Your task to perform on an android device: check battery use Image 0: 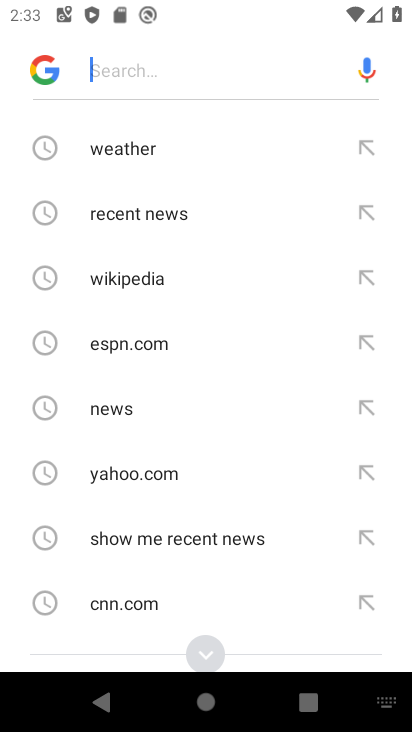
Step 0: press back button
Your task to perform on an android device: check battery use Image 1: 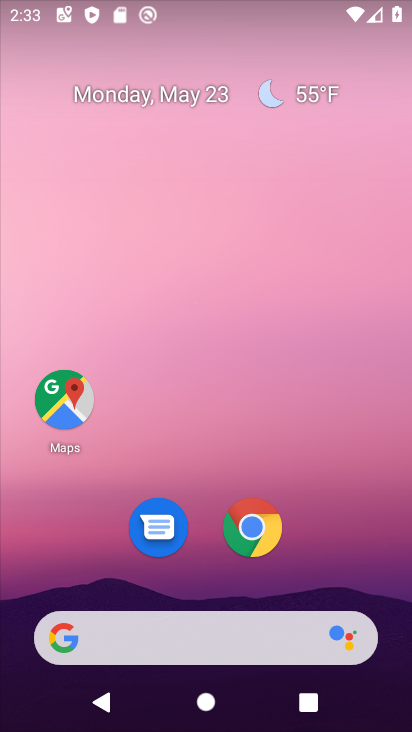
Step 1: drag from (299, 442) to (275, 6)
Your task to perform on an android device: check battery use Image 2: 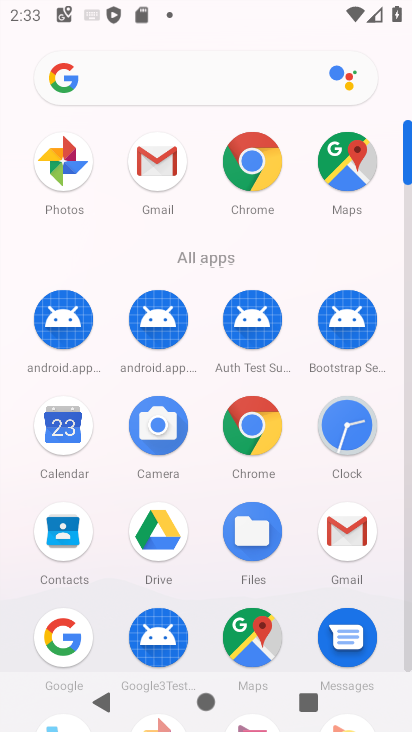
Step 2: drag from (19, 603) to (26, 252)
Your task to perform on an android device: check battery use Image 3: 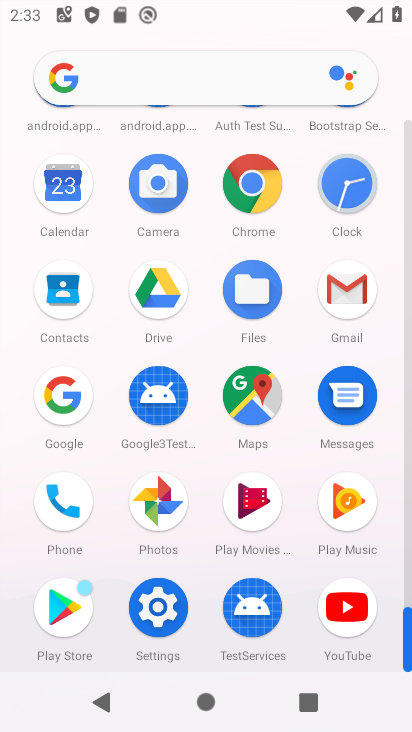
Step 3: click (155, 600)
Your task to perform on an android device: check battery use Image 4: 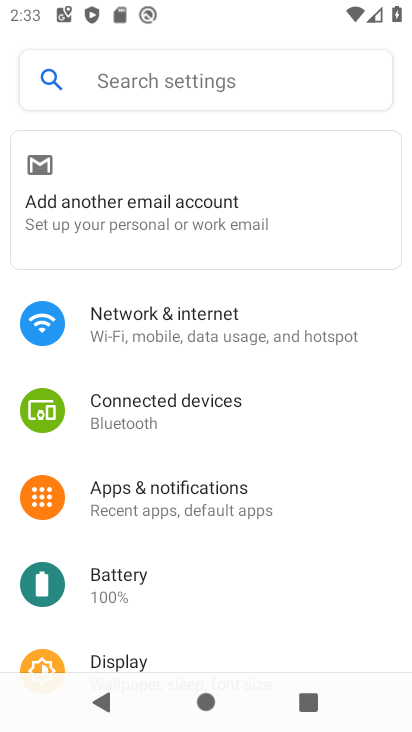
Step 4: drag from (286, 567) to (281, 152)
Your task to perform on an android device: check battery use Image 5: 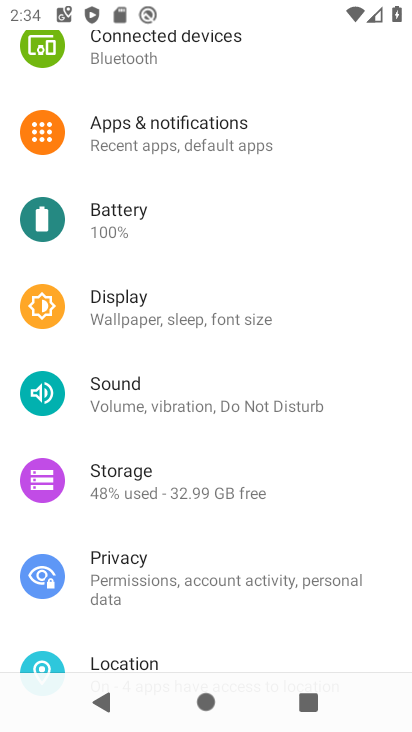
Step 5: drag from (252, 534) to (268, 98)
Your task to perform on an android device: check battery use Image 6: 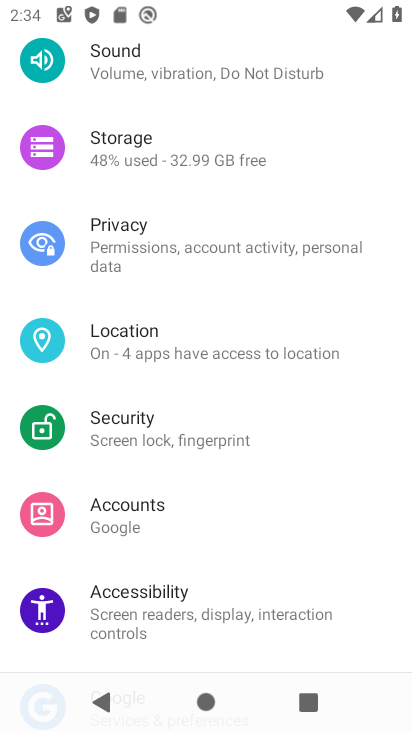
Step 6: drag from (239, 493) to (278, 151)
Your task to perform on an android device: check battery use Image 7: 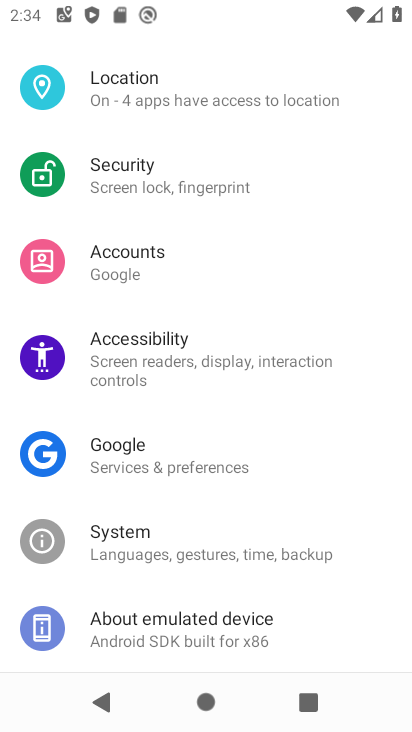
Step 7: drag from (277, 181) to (255, 626)
Your task to perform on an android device: check battery use Image 8: 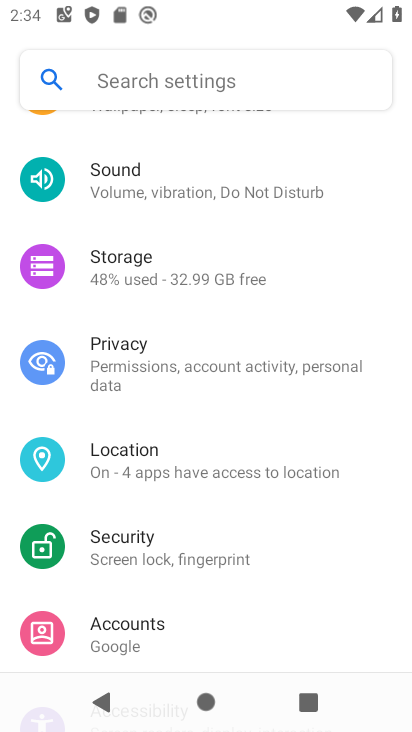
Step 8: drag from (245, 223) to (246, 645)
Your task to perform on an android device: check battery use Image 9: 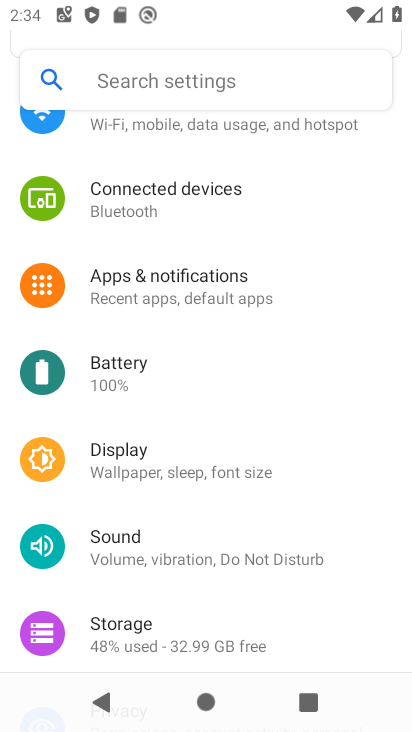
Step 9: drag from (262, 204) to (242, 631)
Your task to perform on an android device: check battery use Image 10: 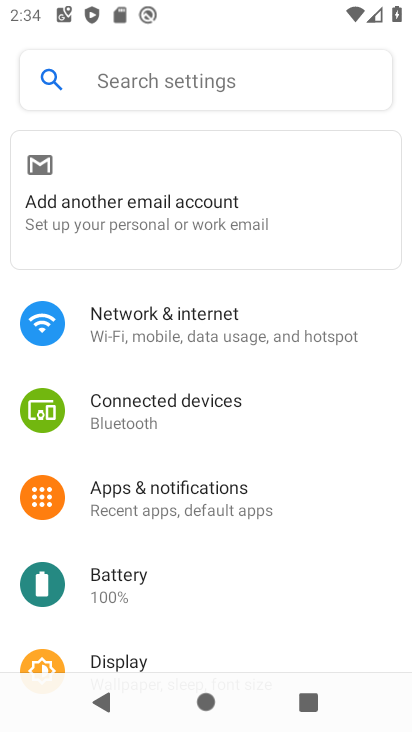
Step 10: drag from (246, 411) to (255, 165)
Your task to perform on an android device: check battery use Image 11: 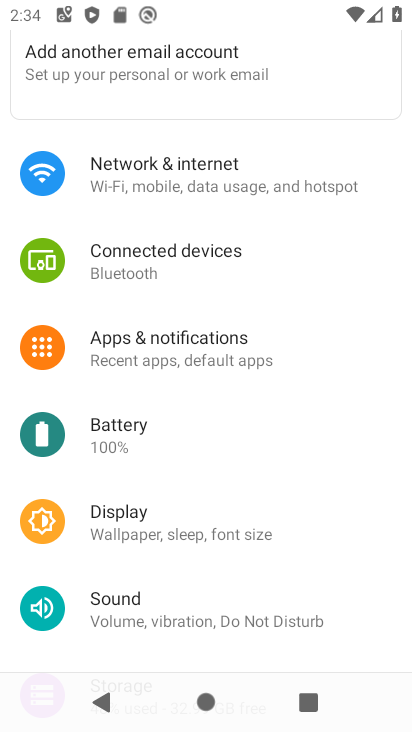
Step 11: click (156, 428)
Your task to perform on an android device: check battery use Image 12: 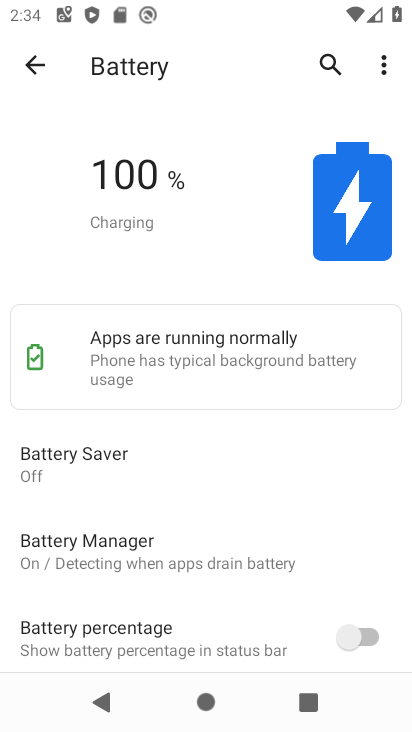
Step 12: task complete